Your task to perform on an android device: Go to calendar. Show me events next week Image 0: 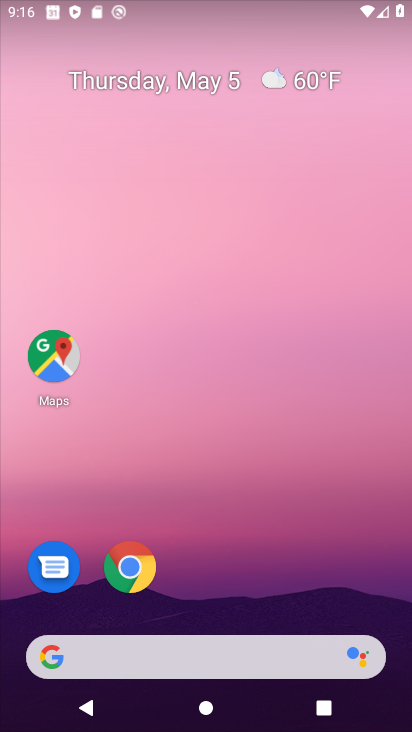
Step 0: drag from (228, 726) to (208, 106)
Your task to perform on an android device: Go to calendar. Show me events next week Image 1: 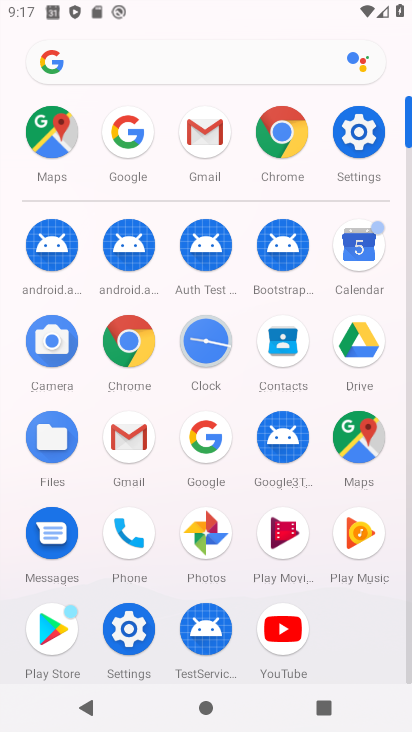
Step 1: click (362, 238)
Your task to perform on an android device: Go to calendar. Show me events next week Image 2: 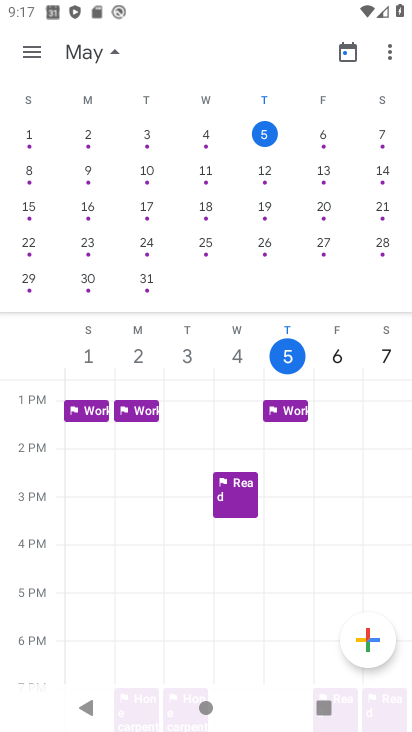
Step 2: click (89, 168)
Your task to perform on an android device: Go to calendar. Show me events next week Image 3: 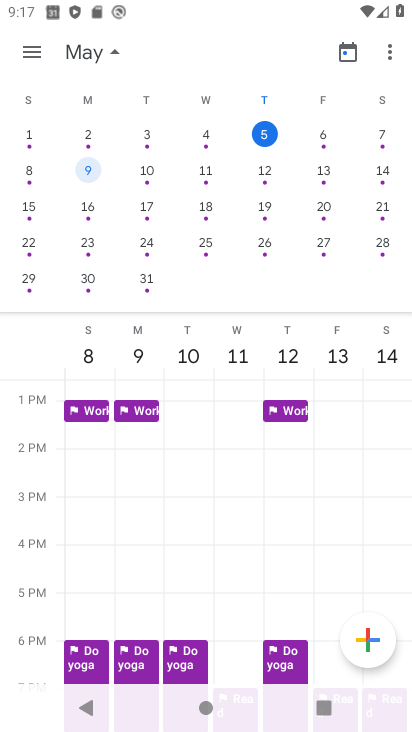
Step 3: task complete